Your task to perform on an android device: change notifications settings Image 0: 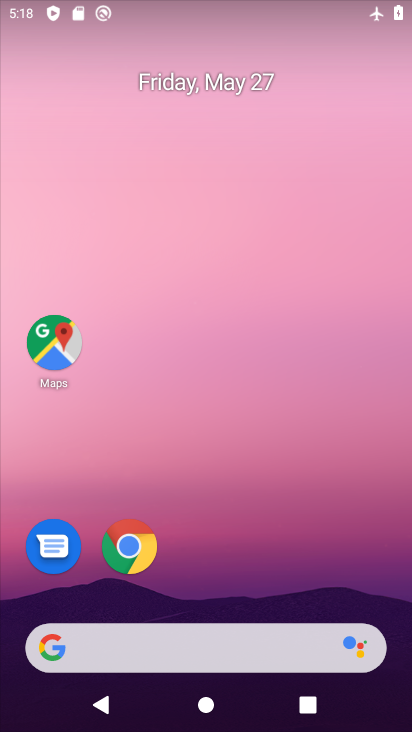
Step 0: drag from (259, 553) to (228, 236)
Your task to perform on an android device: change notifications settings Image 1: 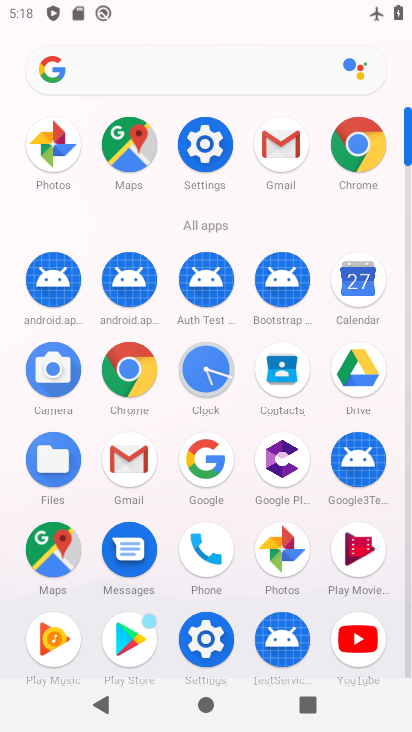
Step 1: click (198, 136)
Your task to perform on an android device: change notifications settings Image 2: 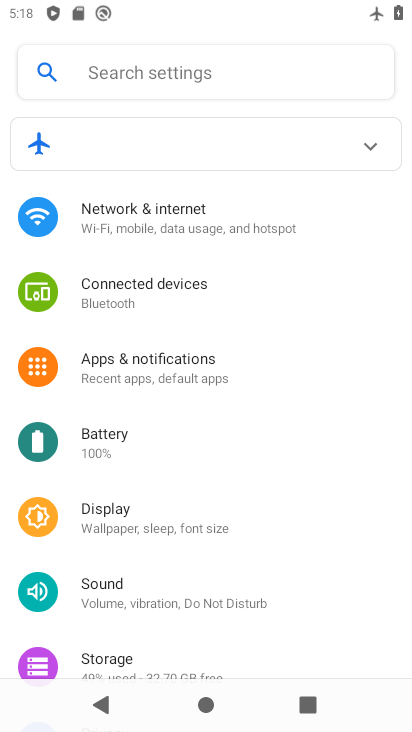
Step 2: click (180, 391)
Your task to perform on an android device: change notifications settings Image 3: 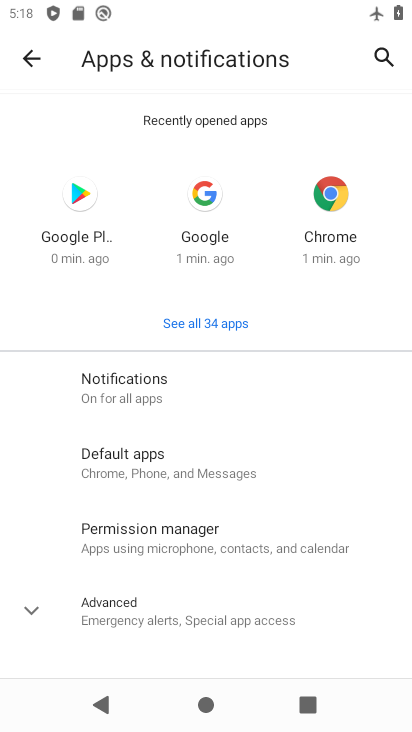
Step 3: click (163, 396)
Your task to perform on an android device: change notifications settings Image 4: 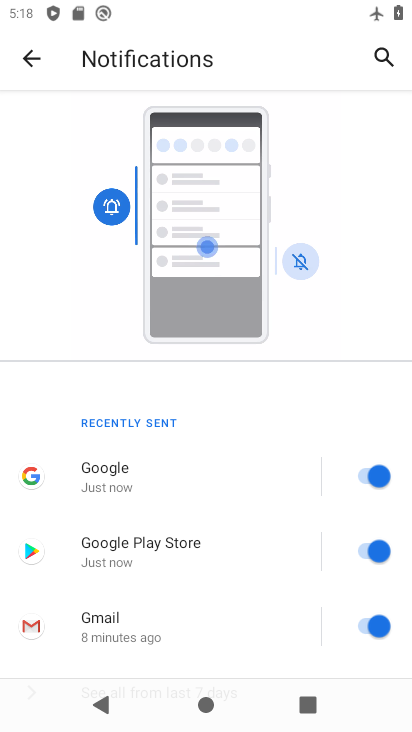
Step 4: drag from (237, 660) to (280, 388)
Your task to perform on an android device: change notifications settings Image 5: 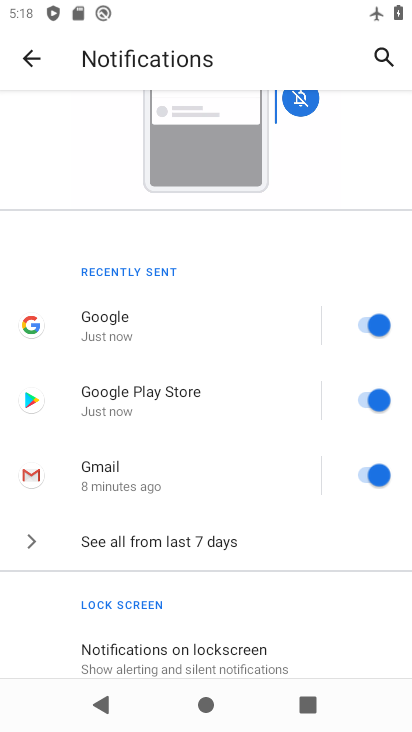
Step 5: click (361, 401)
Your task to perform on an android device: change notifications settings Image 6: 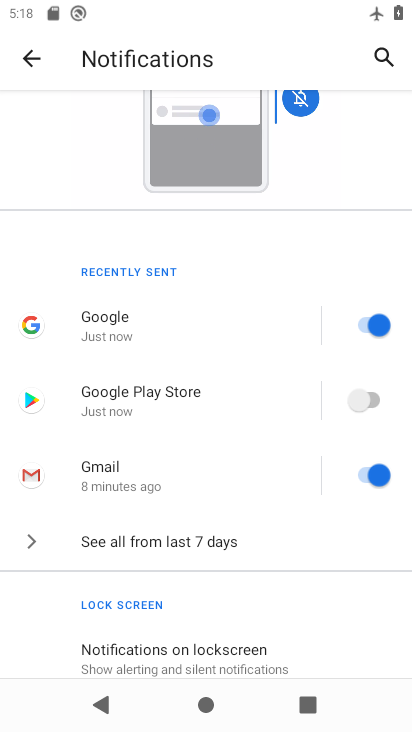
Step 6: task complete